Your task to perform on an android device: turn on priority inbox in the gmail app Image 0: 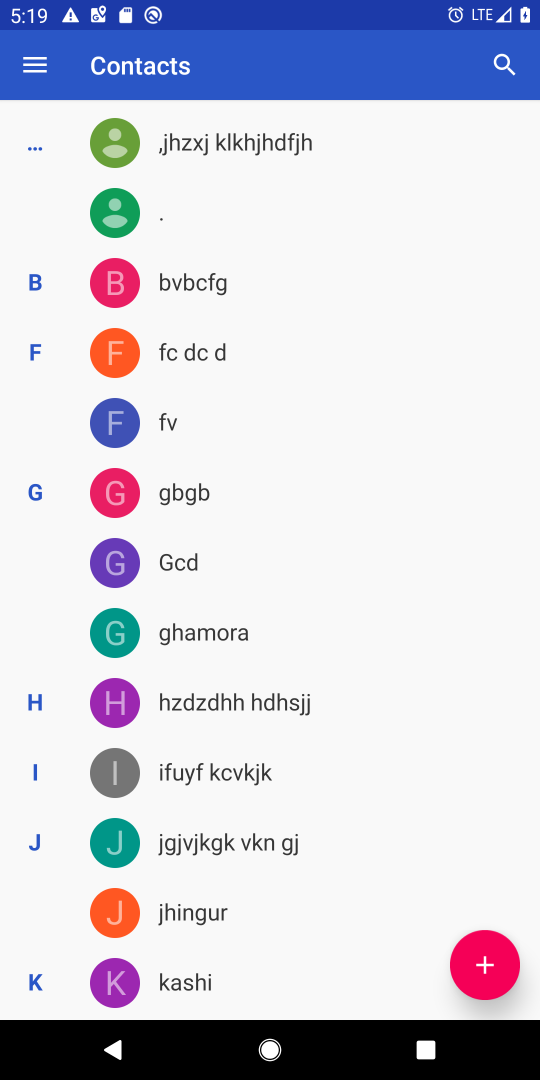
Step 0: press back button
Your task to perform on an android device: turn on priority inbox in the gmail app Image 1: 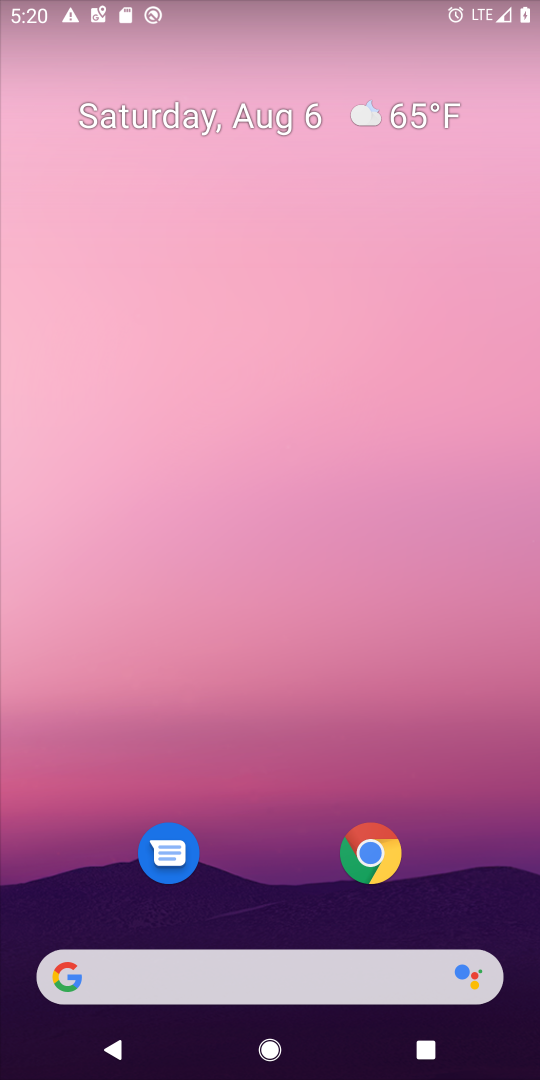
Step 1: drag from (276, 916) to (447, 146)
Your task to perform on an android device: turn on priority inbox in the gmail app Image 2: 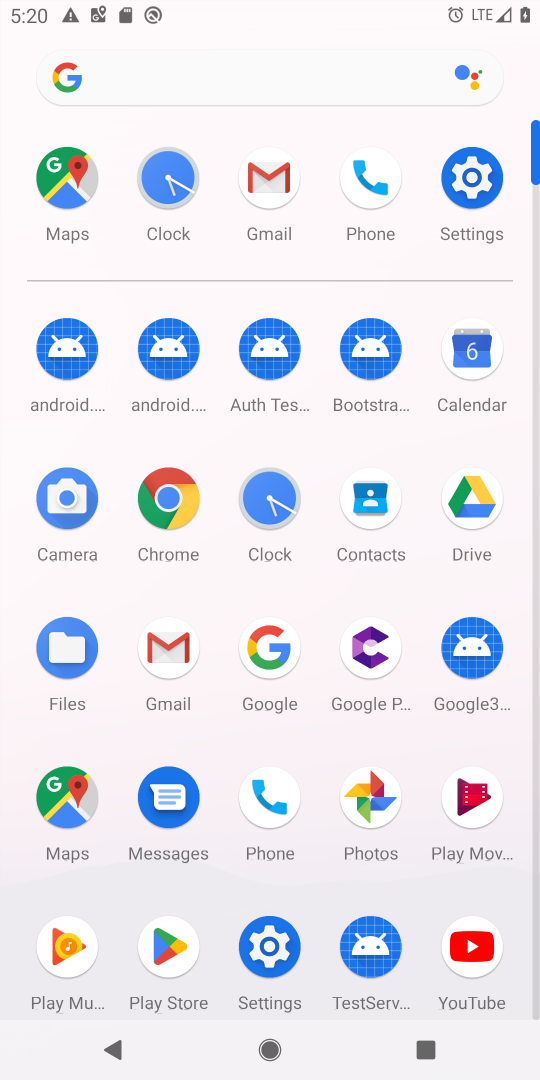
Step 2: click (275, 177)
Your task to perform on an android device: turn on priority inbox in the gmail app Image 3: 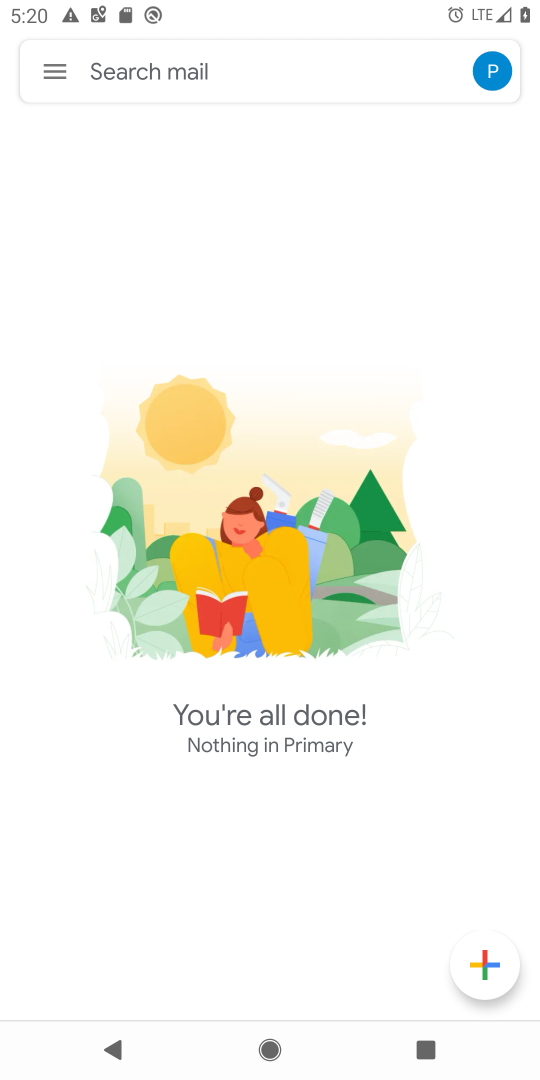
Step 3: click (62, 72)
Your task to perform on an android device: turn on priority inbox in the gmail app Image 4: 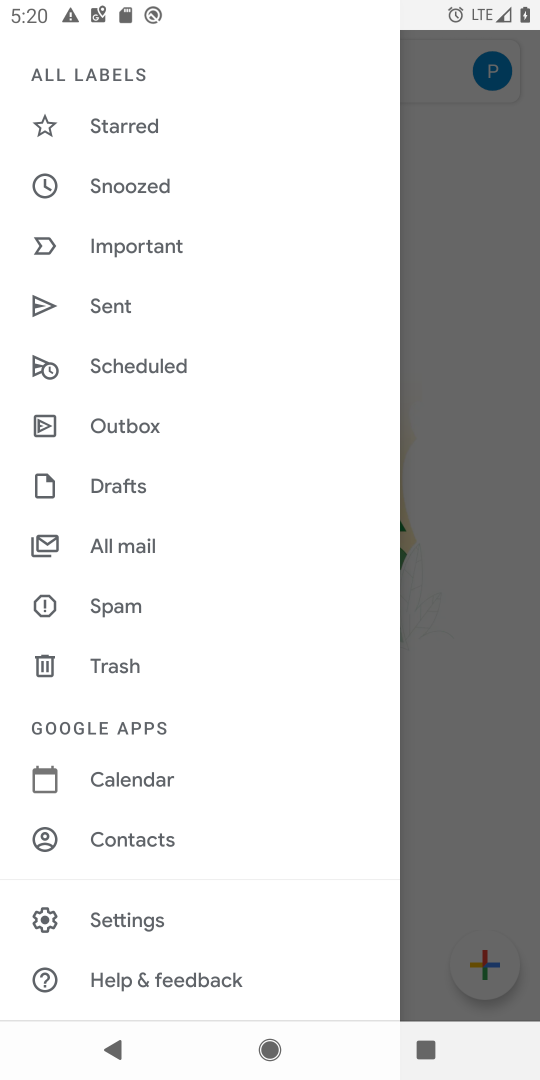
Step 4: click (151, 922)
Your task to perform on an android device: turn on priority inbox in the gmail app Image 5: 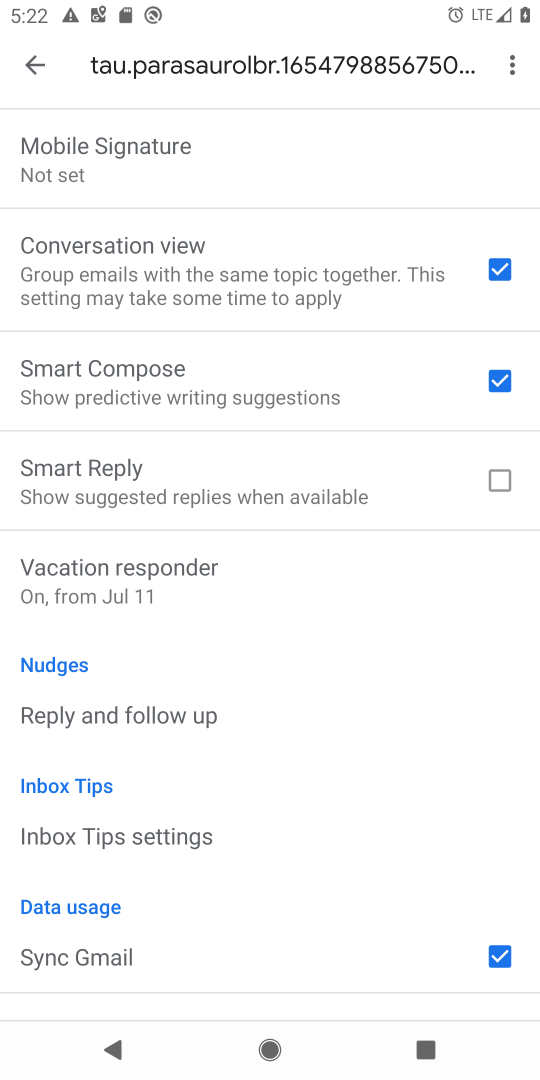
Step 5: drag from (301, 228) to (255, 1079)
Your task to perform on an android device: turn on priority inbox in the gmail app Image 6: 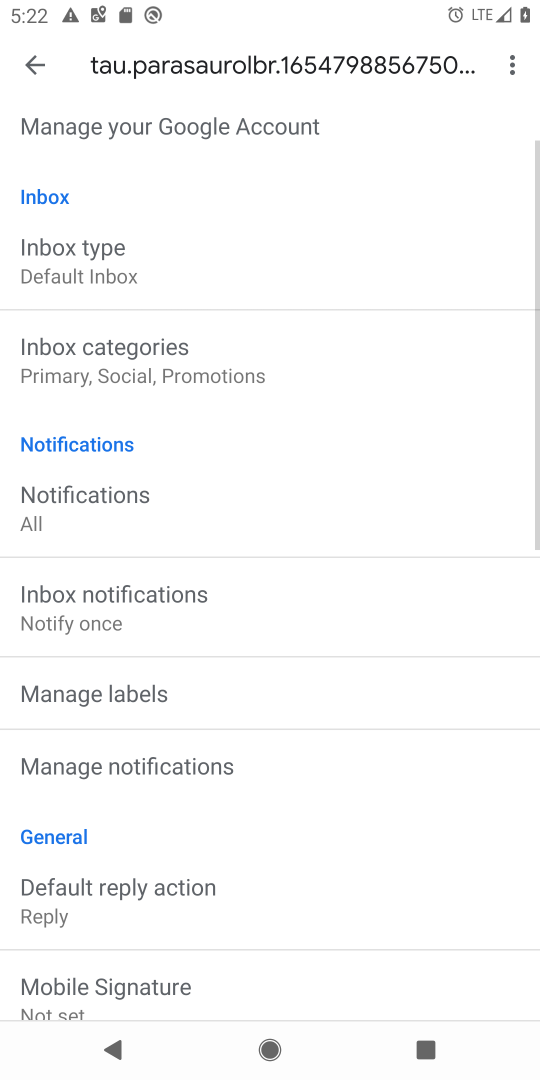
Step 6: click (69, 229)
Your task to perform on an android device: turn on priority inbox in the gmail app Image 7: 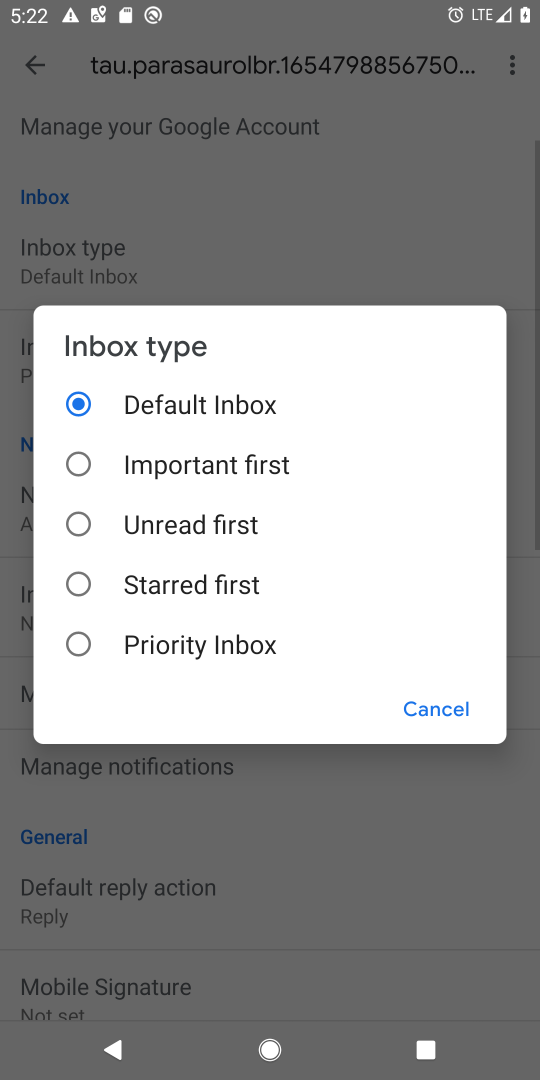
Step 7: click (89, 640)
Your task to perform on an android device: turn on priority inbox in the gmail app Image 8: 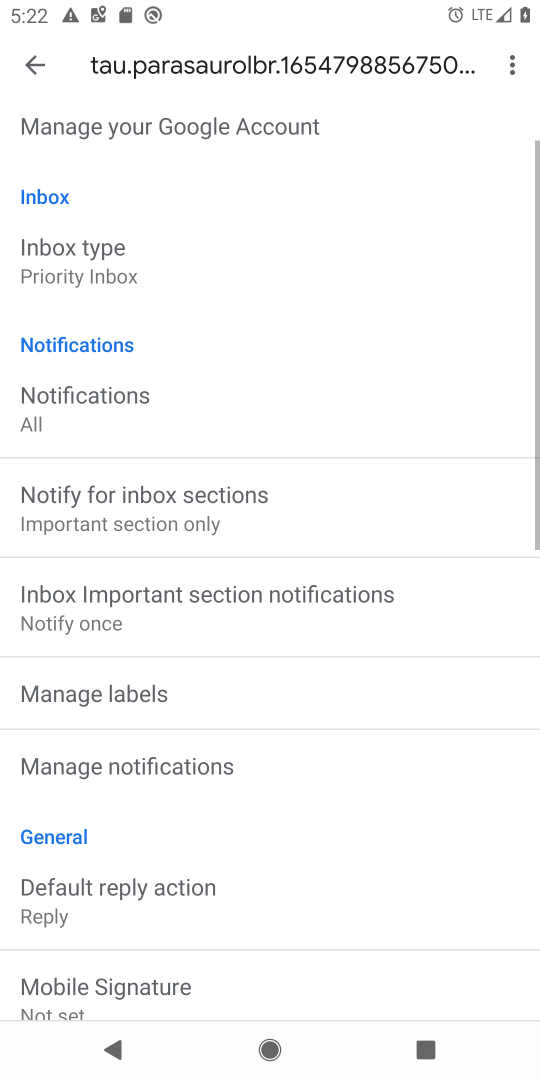
Step 8: task complete